Your task to perform on an android device: How big is a blue whale? Image 0: 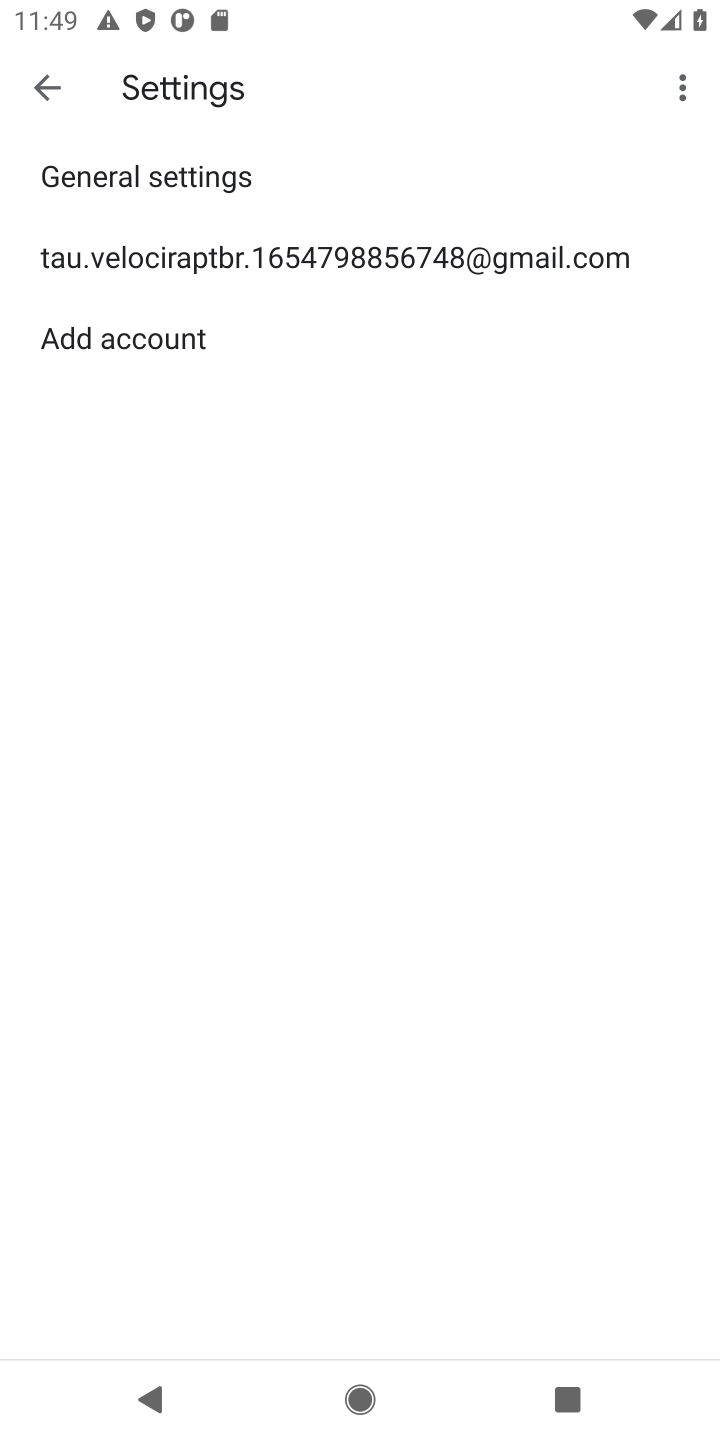
Step 0: press home button
Your task to perform on an android device: How big is a blue whale? Image 1: 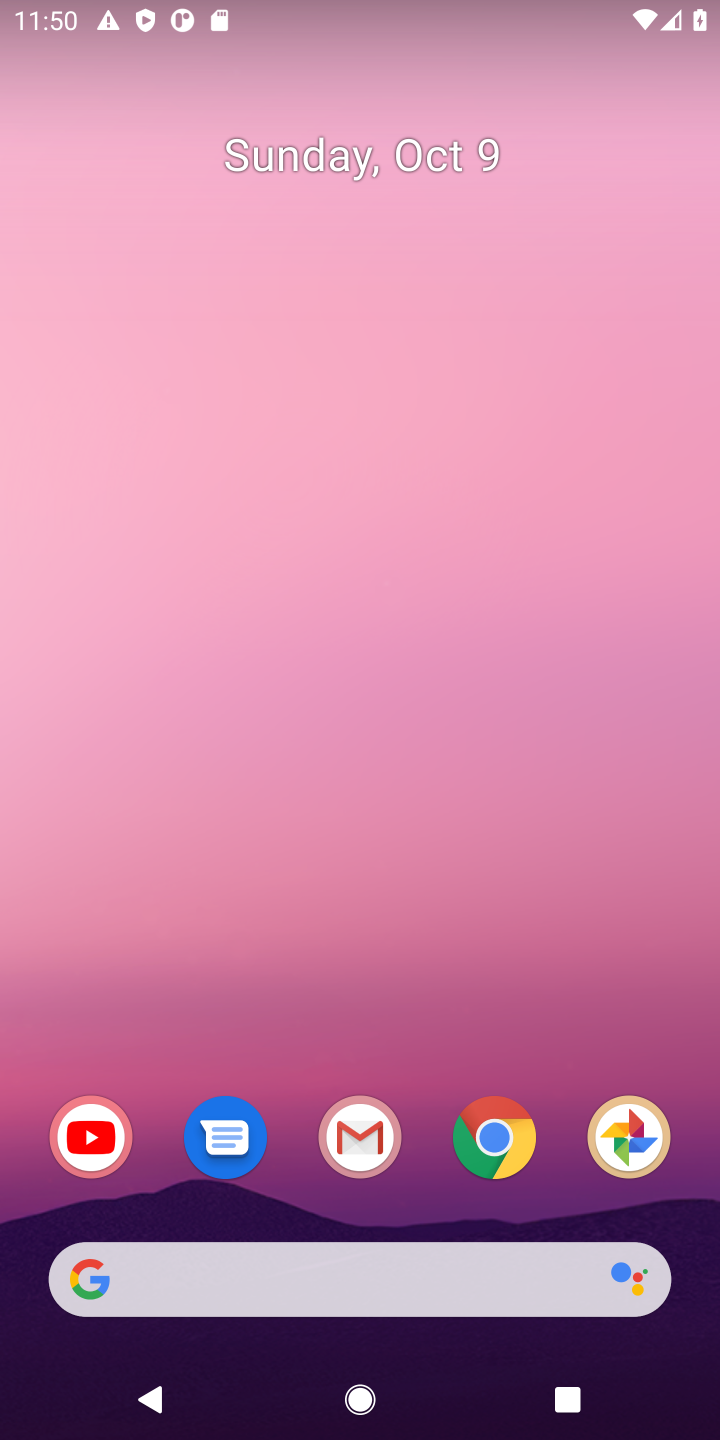
Step 1: drag from (429, 1061) to (330, 51)
Your task to perform on an android device: How big is a blue whale? Image 2: 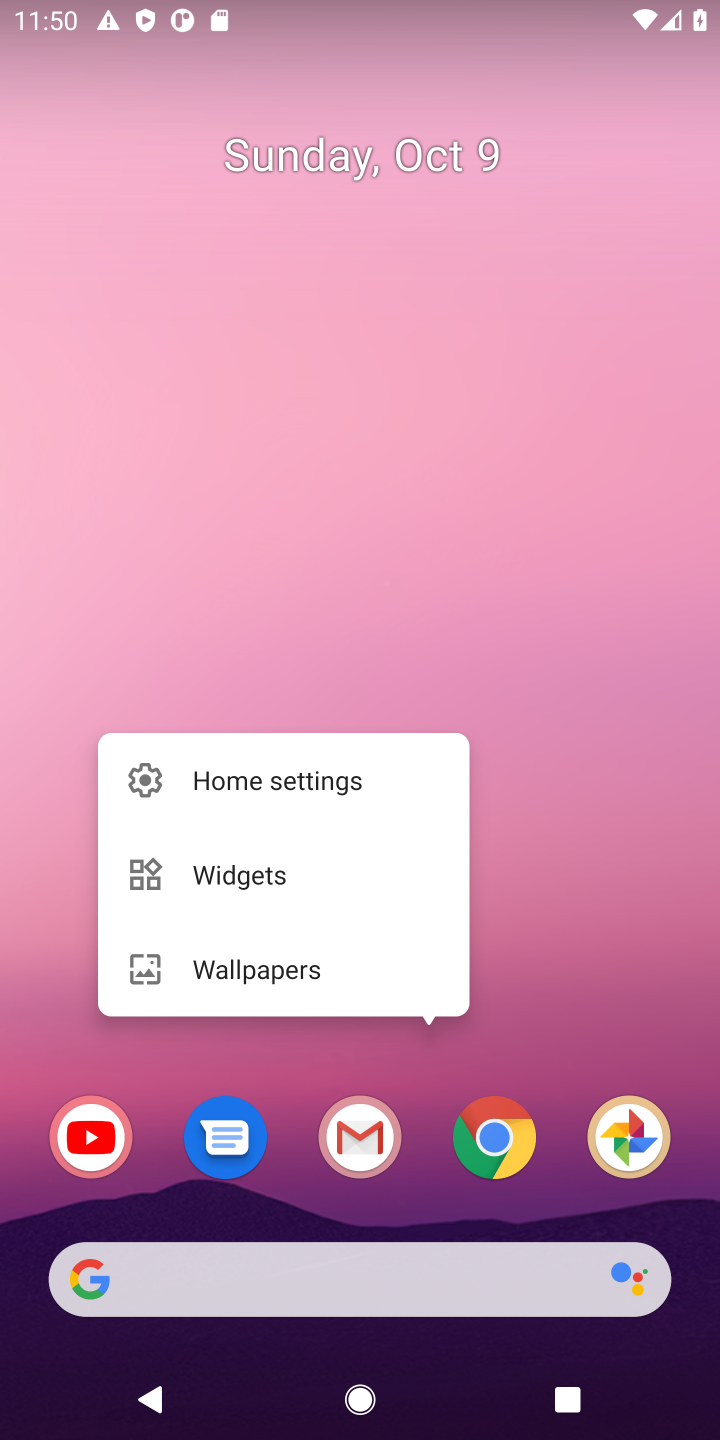
Step 2: click (539, 589)
Your task to perform on an android device: How big is a blue whale? Image 3: 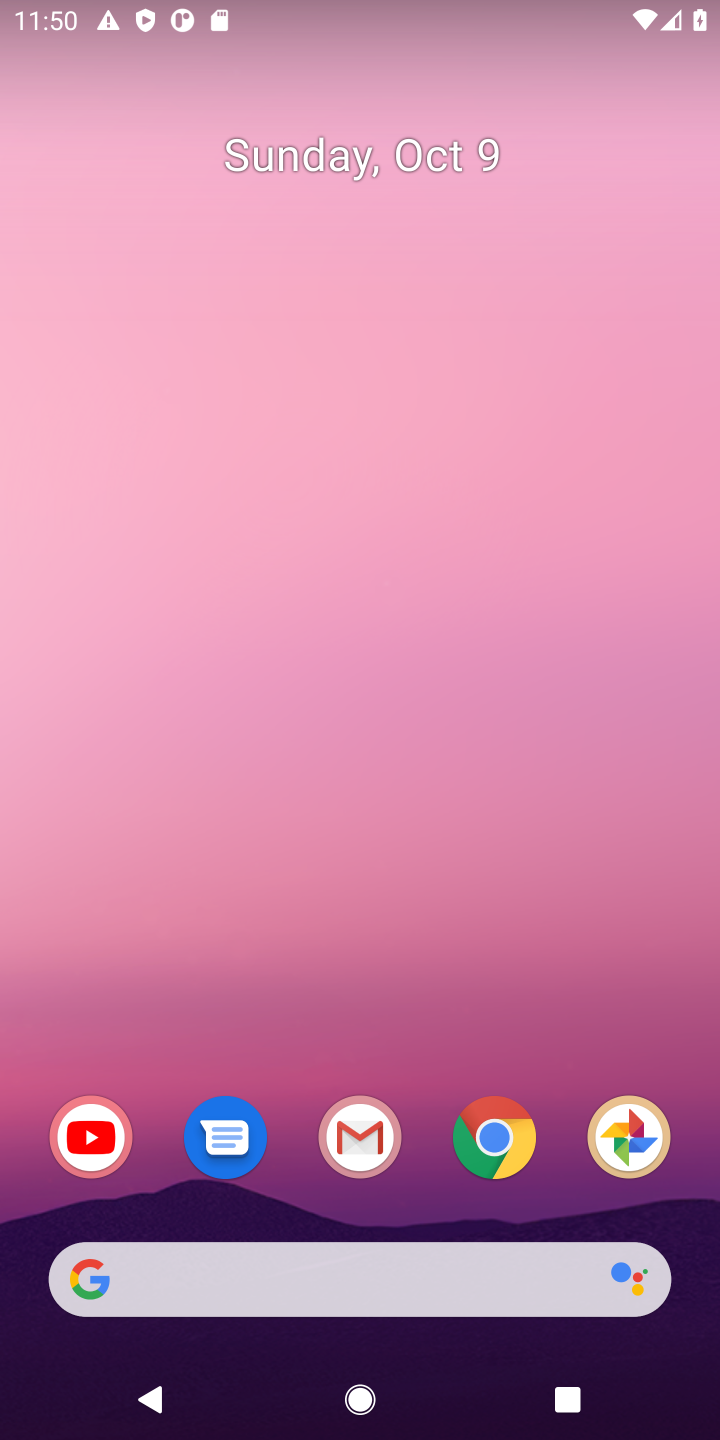
Step 3: drag from (557, 1058) to (493, 42)
Your task to perform on an android device: How big is a blue whale? Image 4: 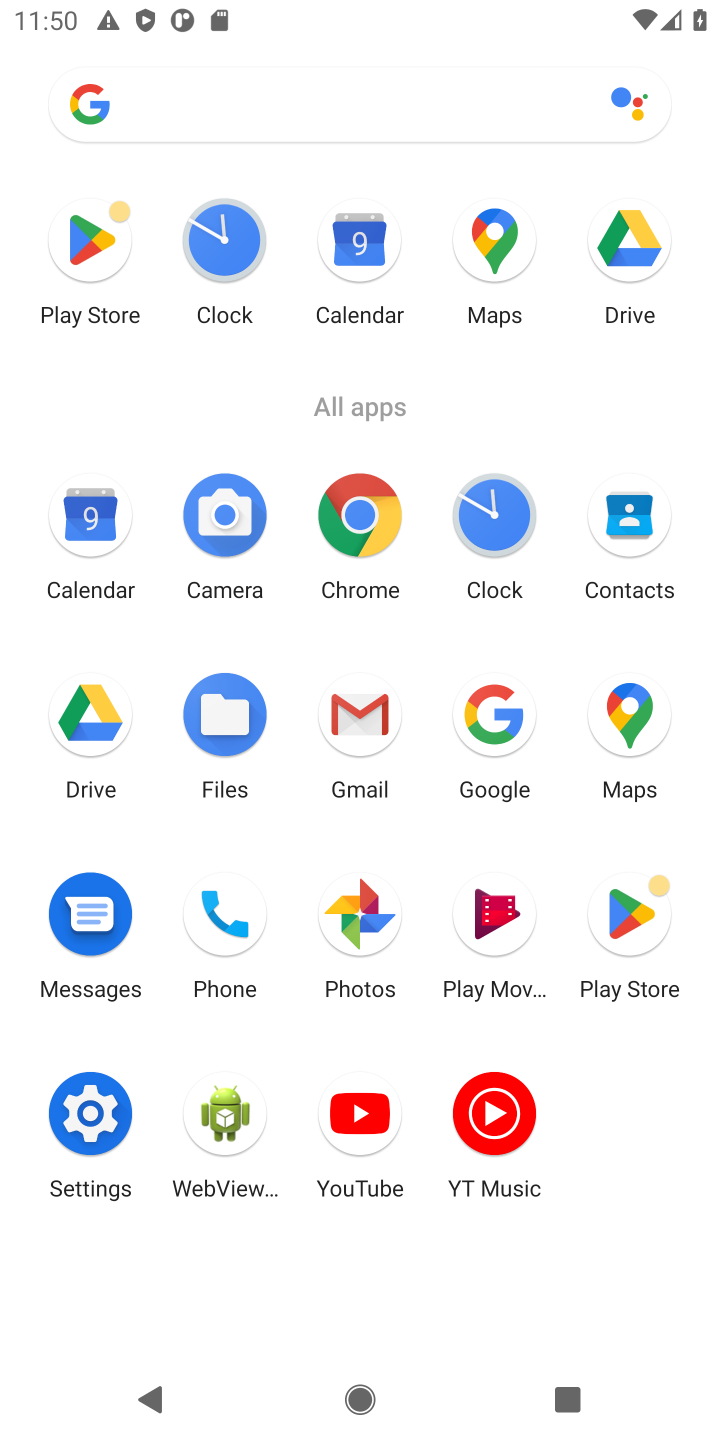
Step 4: click (368, 503)
Your task to perform on an android device: How big is a blue whale? Image 5: 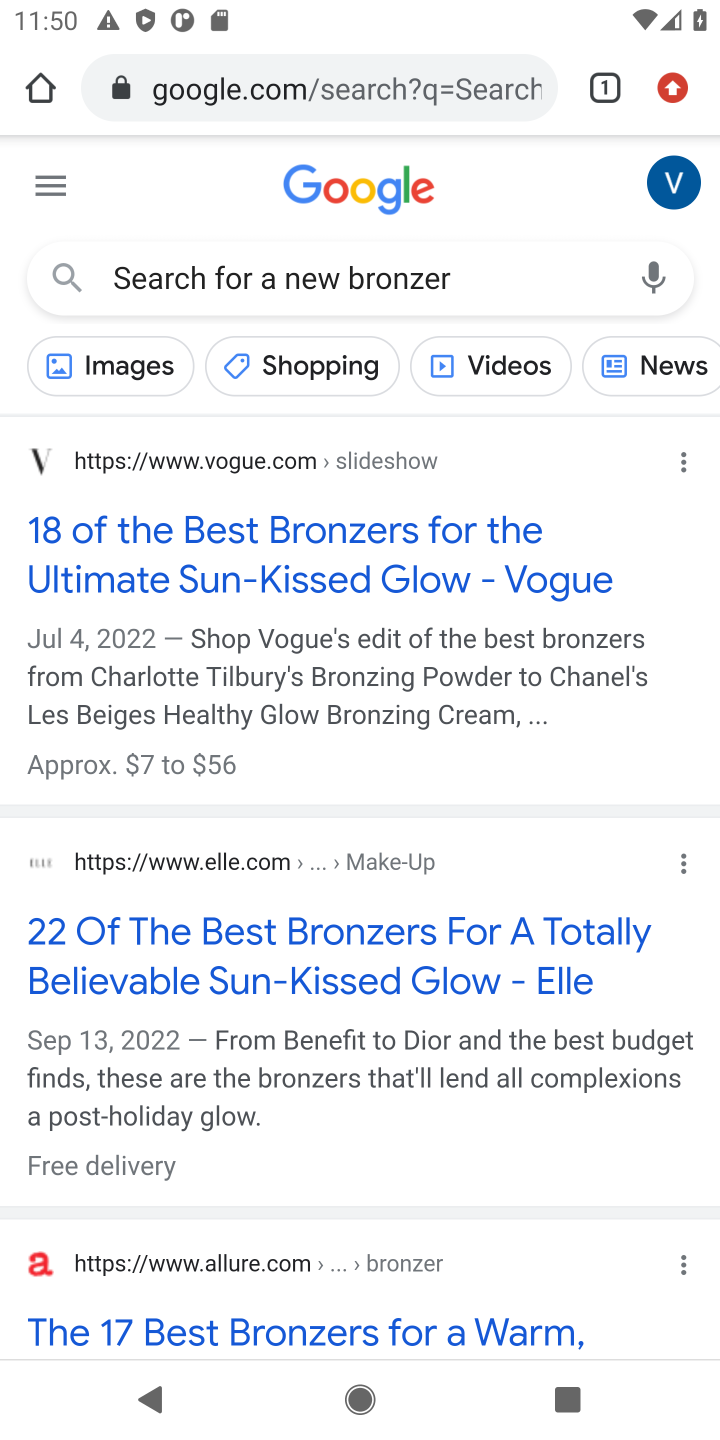
Step 5: click (270, 83)
Your task to perform on an android device: How big is a blue whale? Image 6: 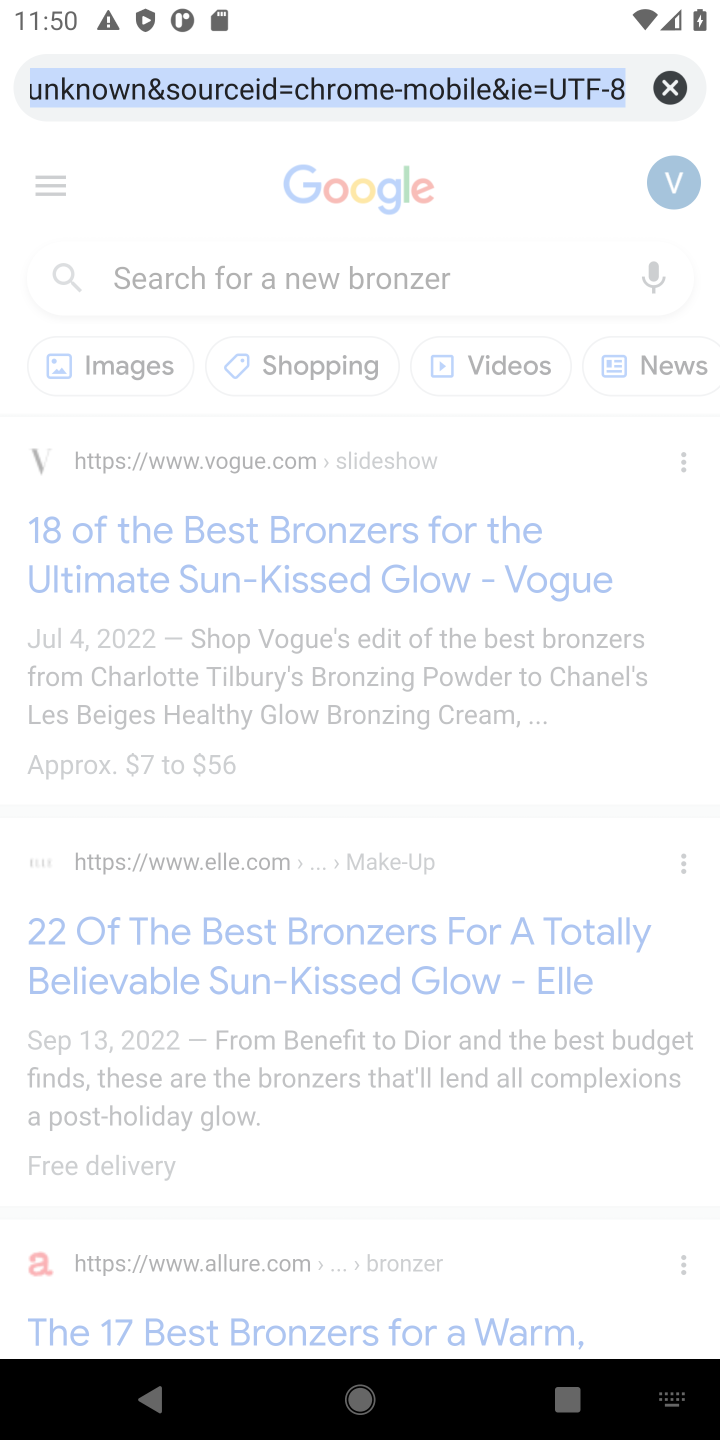
Step 6: click (664, 85)
Your task to perform on an android device: How big is a blue whale? Image 7: 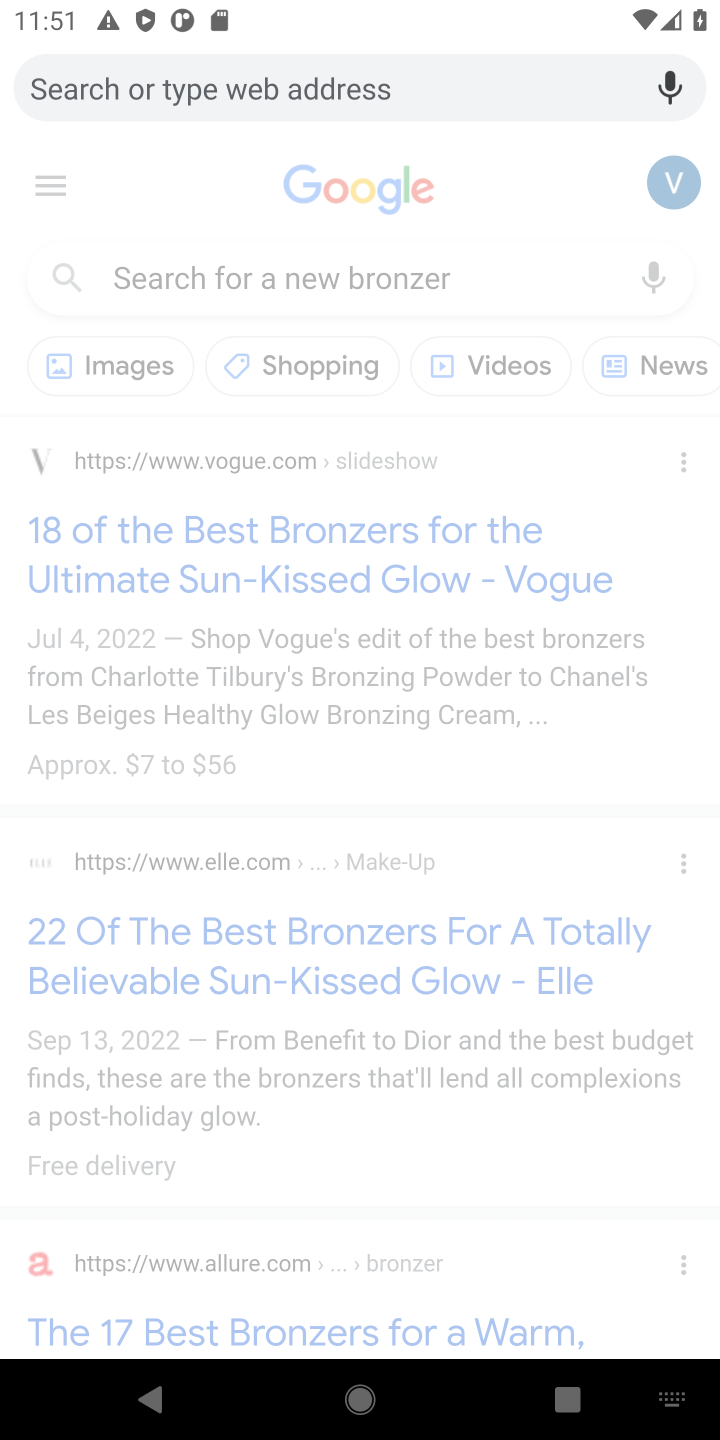
Step 7: type "How big is a blue whale?"
Your task to perform on an android device: How big is a blue whale? Image 8: 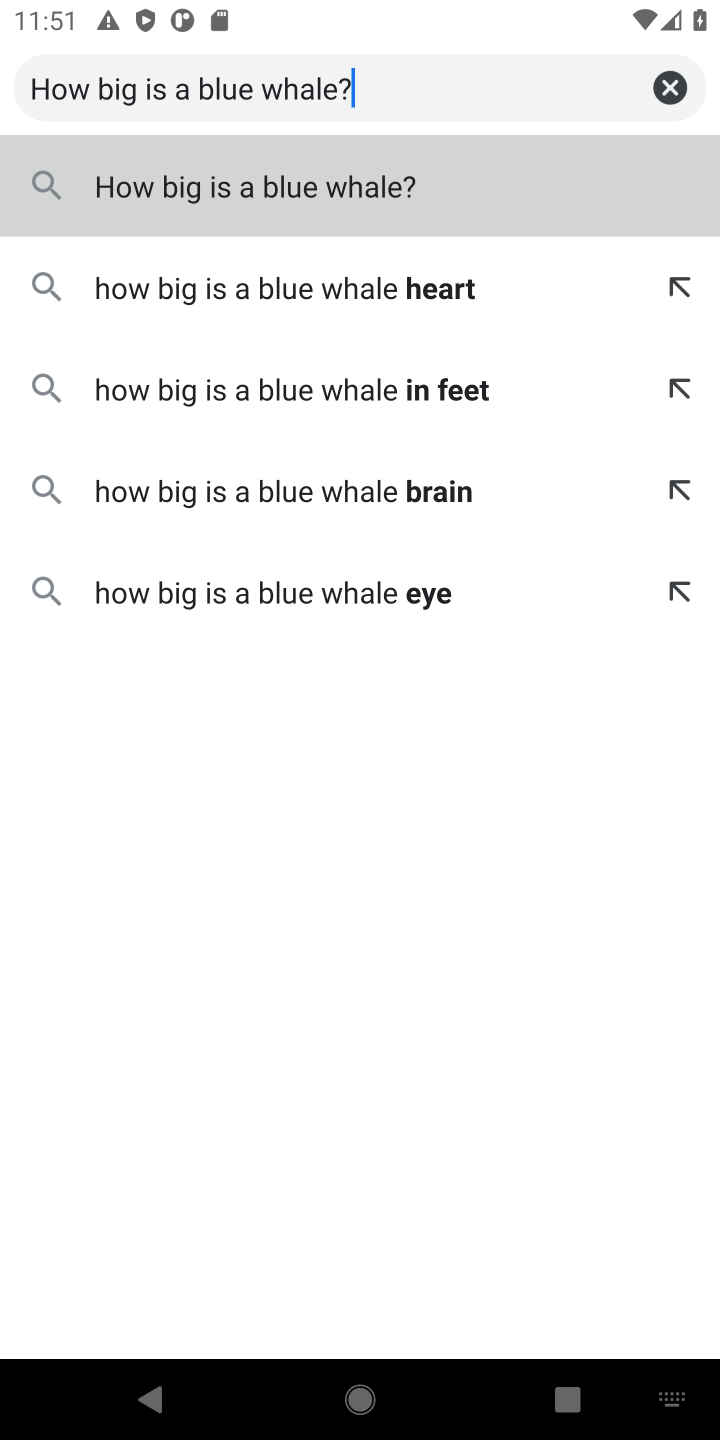
Step 8: click (254, 202)
Your task to perform on an android device: How big is a blue whale? Image 9: 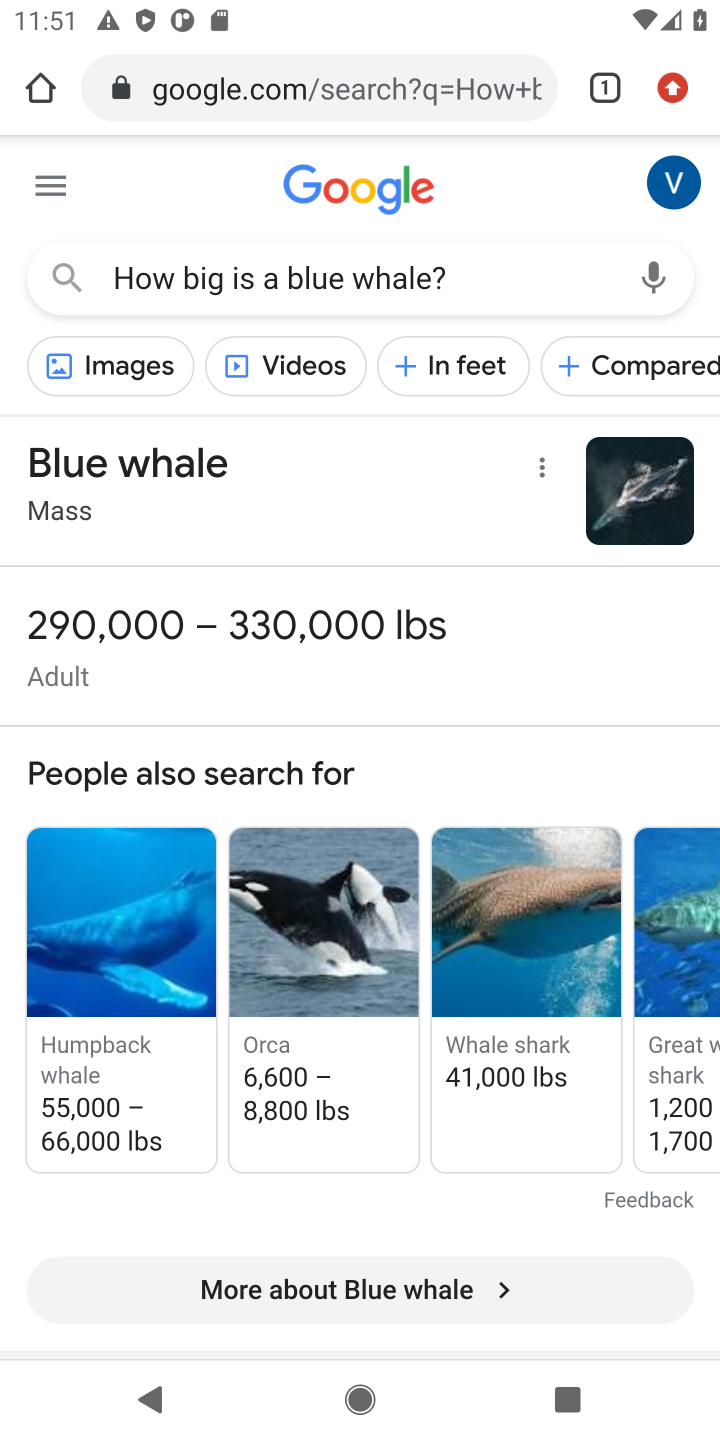
Step 9: task complete